Your task to perform on an android device: see sites visited before in the chrome app Image 0: 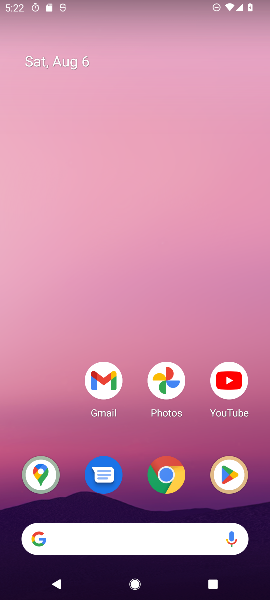
Step 0: click (168, 470)
Your task to perform on an android device: see sites visited before in the chrome app Image 1: 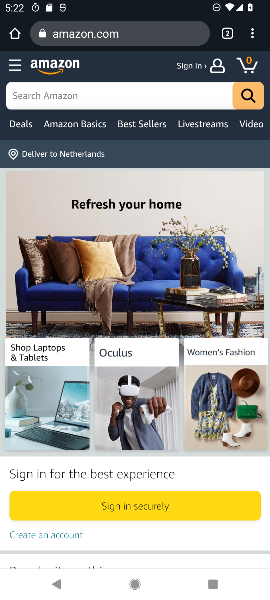
Step 1: click (254, 30)
Your task to perform on an android device: see sites visited before in the chrome app Image 2: 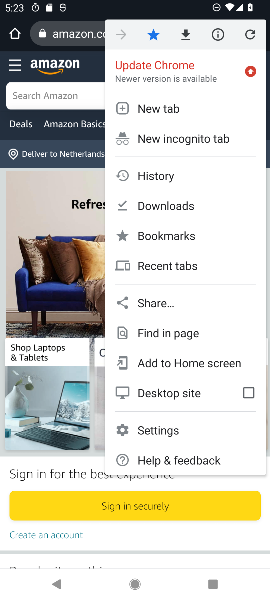
Step 2: click (152, 425)
Your task to perform on an android device: see sites visited before in the chrome app Image 3: 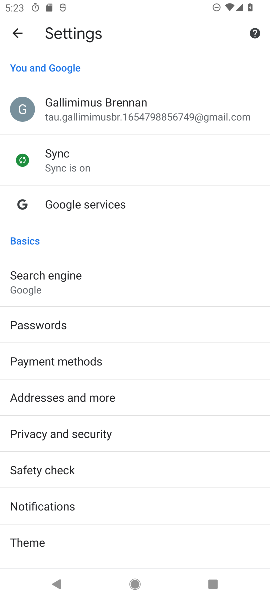
Step 3: drag from (146, 499) to (169, 147)
Your task to perform on an android device: see sites visited before in the chrome app Image 4: 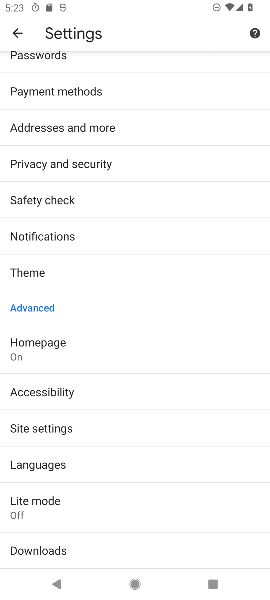
Step 4: click (68, 424)
Your task to perform on an android device: see sites visited before in the chrome app Image 5: 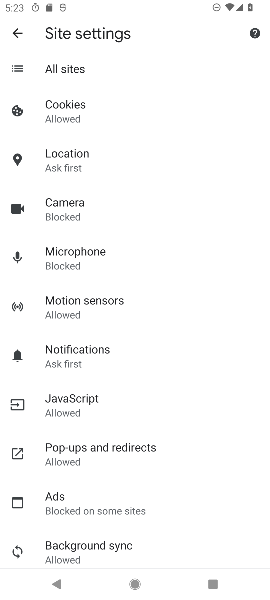
Step 5: task complete